Your task to perform on an android device: Open eBay Image 0: 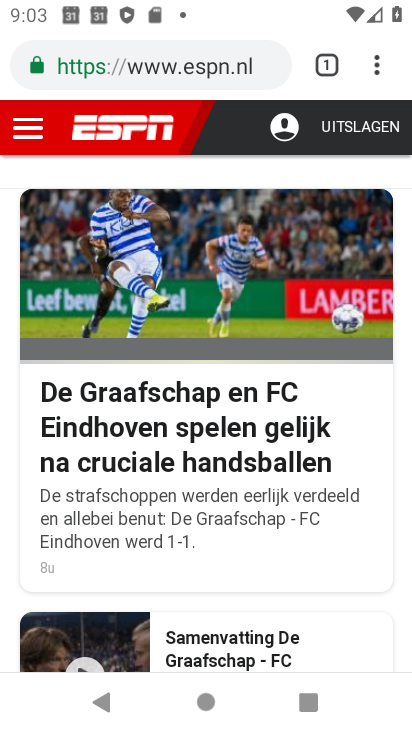
Step 0: press home button
Your task to perform on an android device: Open eBay Image 1: 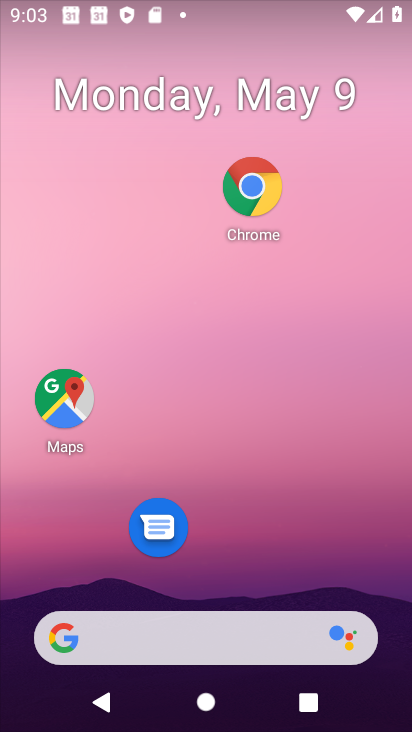
Step 1: drag from (207, 581) to (278, 218)
Your task to perform on an android device: Open eBay Image 2: 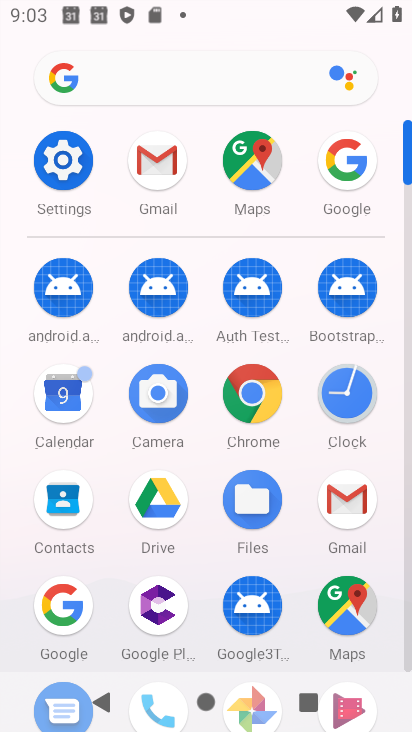
Step 2: click (251, 383)
Your task to perform on an android device: Open eBay Image 3: 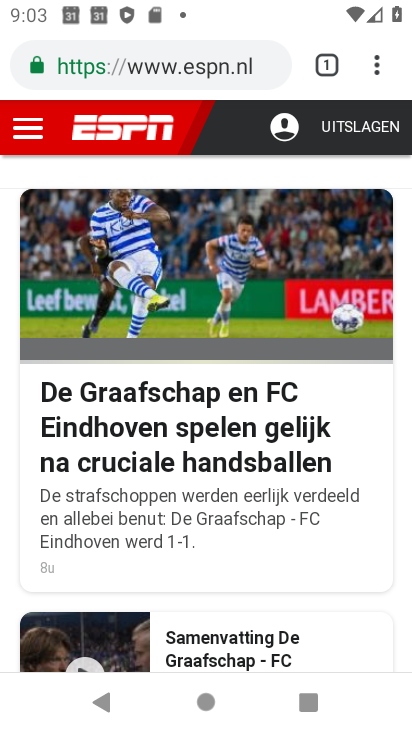
Step 3: click (330, 62)
Your task to perform on an android device: Open eBay Image 4: 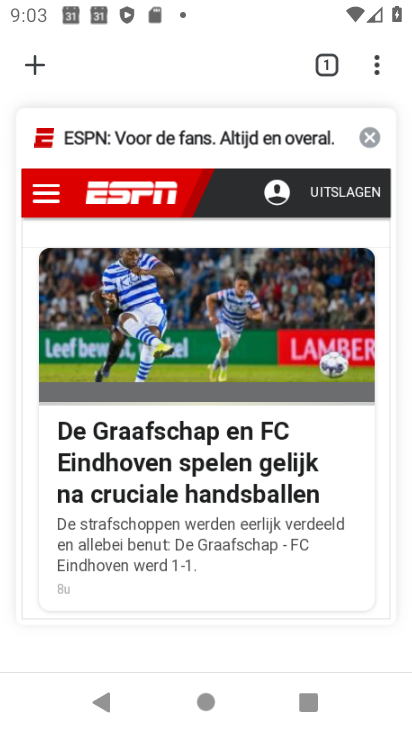
Step 4: click (374, 138)
Your task to perform on an android device: Open eBay Image 5: 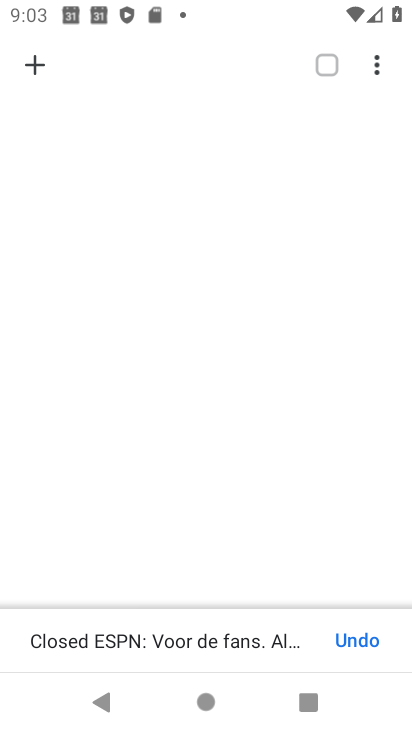
Step 5: click (40, 71)
Your task to perform on an android device: Open eBay Image 6: 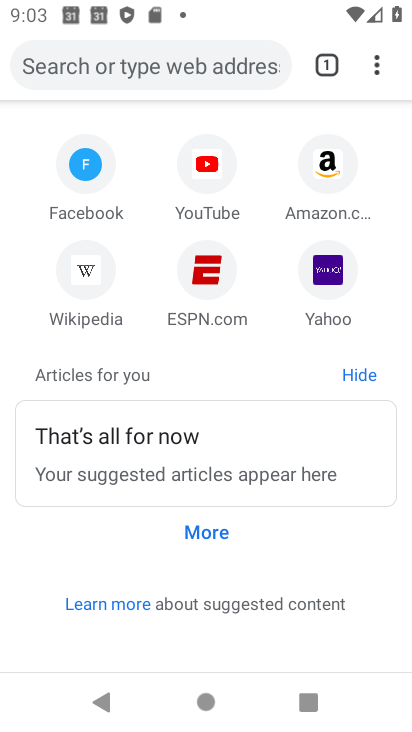
Step 6: click (149, 60)
Your task to perform on an android device: Open eBay Image 7: 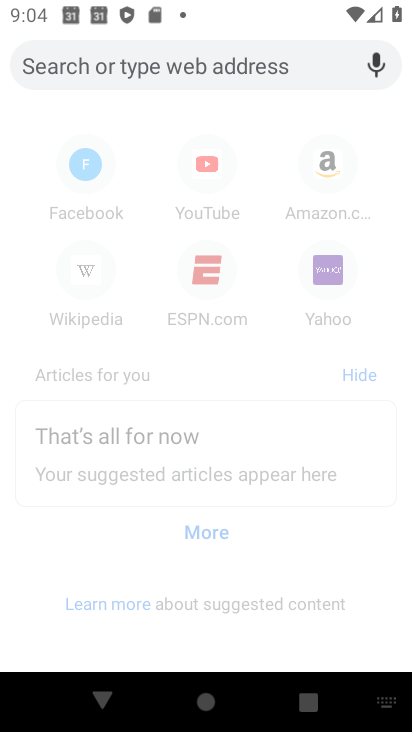
Step 7: type "ebay.com"
Your task to perform on an android device: Open eBay Image 8: 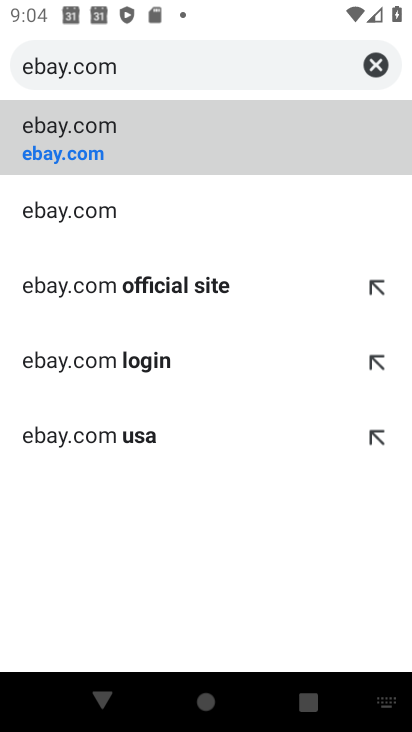
Step 8: click (117, 142)
Your task to perform on an android device: Open eBay Image 9: 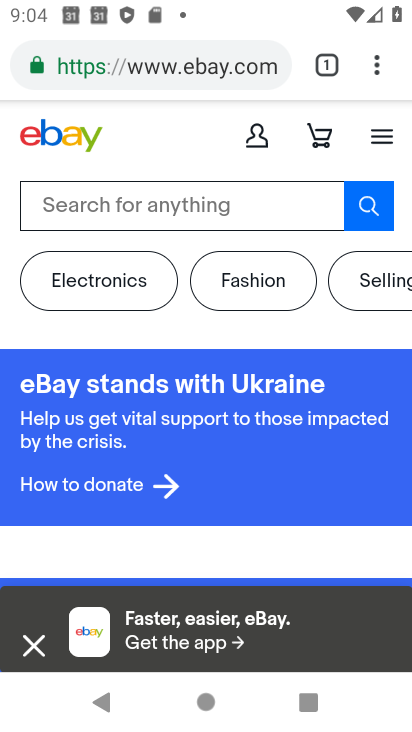
Step 9: task complete